Your task to perform on an android device: Go to calendar. Show me events next week Image 0: 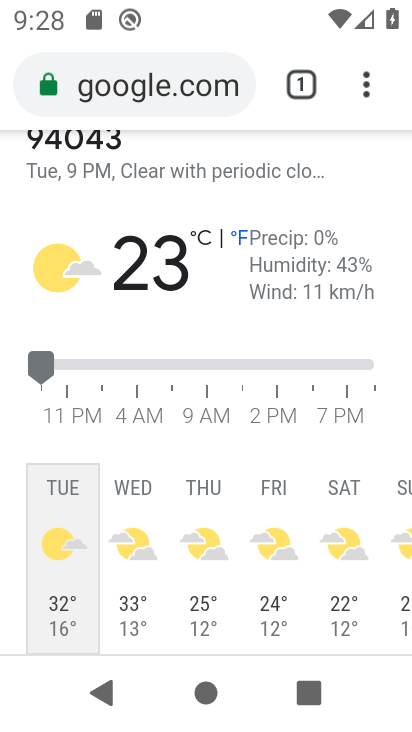
Step 0: press home button
Your task to perform on an android device: Go to calendar. Show me events next week Image 1: 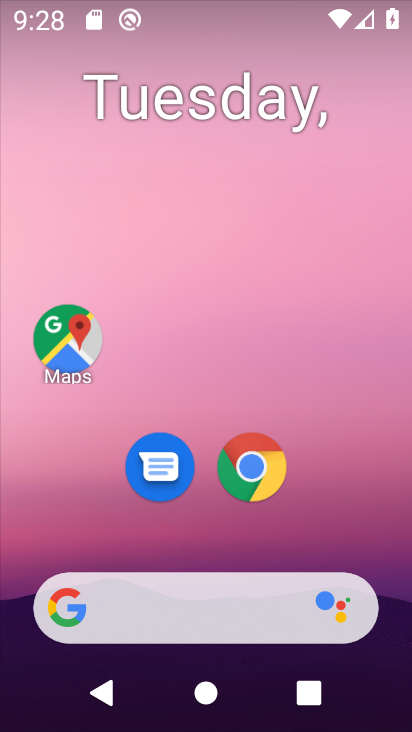
Step 1: drag from (365, 526) to (372, 130)
Your task to perform on an android device: Go to calendar. Show me events next week Image 2: 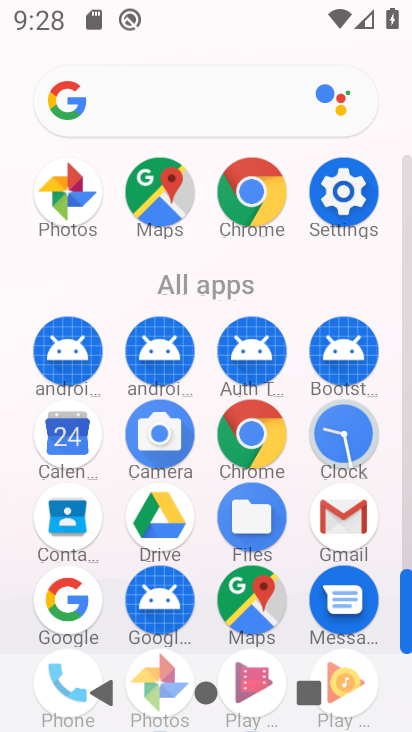
Step 2: click (66, 445)
Your task to perform on an android device: Go to calendar. Show me events next week Image 3: 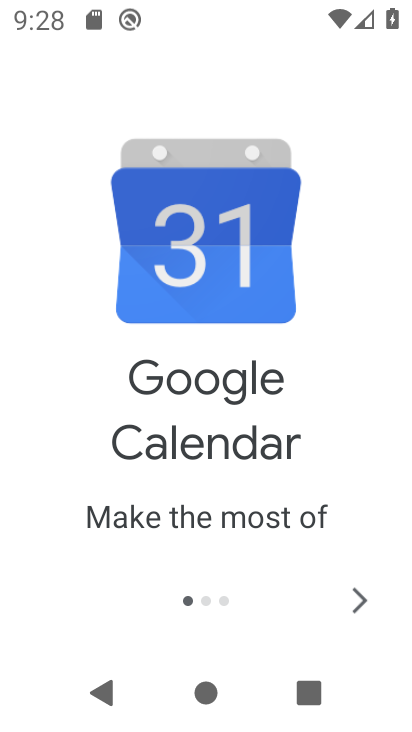
Step 3: click (352, 608)
Your task to perform on an android device: Go to calendar. Show me events next week Image 4: 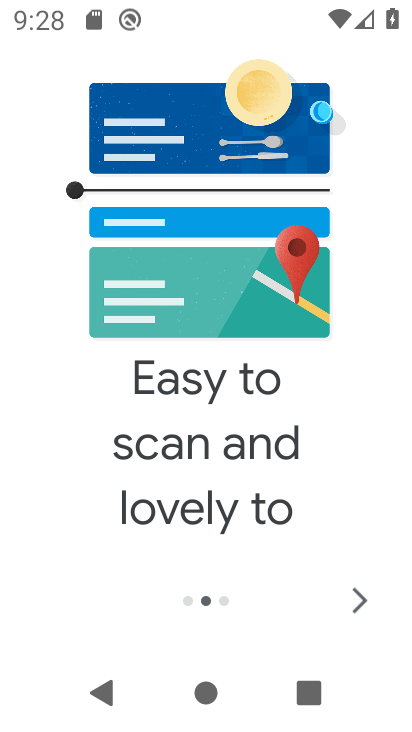
Step 4: click (351, 607)
Your task to perform on an android device: Go to calendar. Show me events next week Image 5: 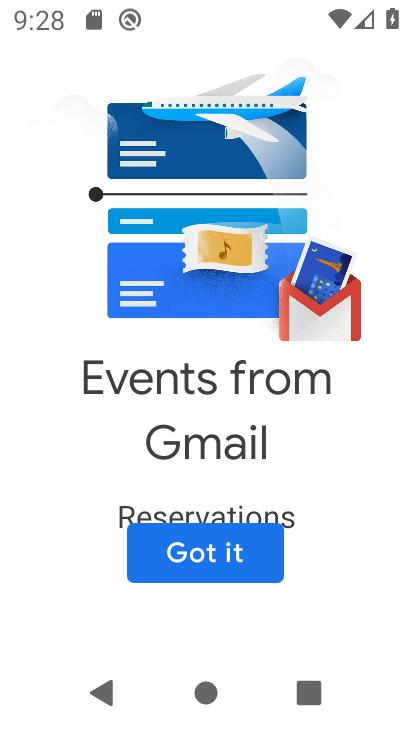
Step 5: click (220, 559)
Your task to perform on an android device: Go to calendar. Show me events next week Image 6: 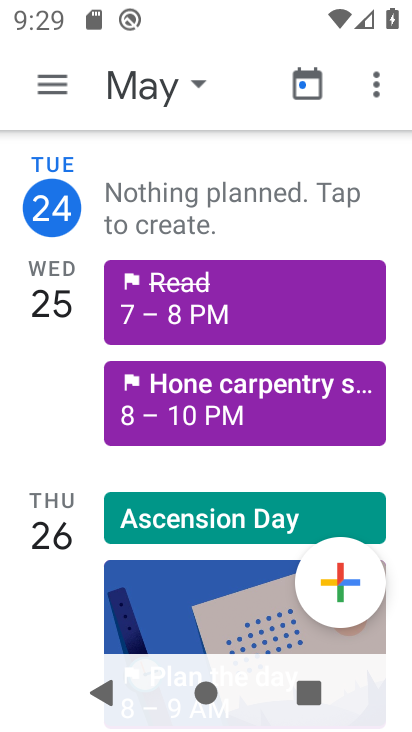
Step 6: click (155, 91)
Your task to perform on an android device: Go to calendar. Show me events next week Image 7: 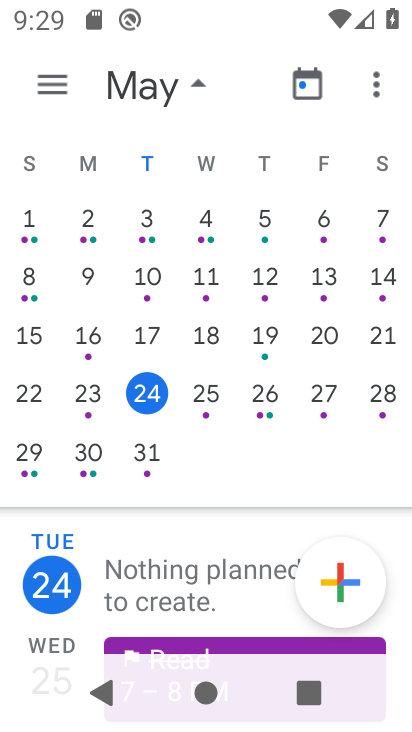
Step 7: click (28, 452)
Your task to perform on an android device: Go to calendar. Show me events next week Image 8: 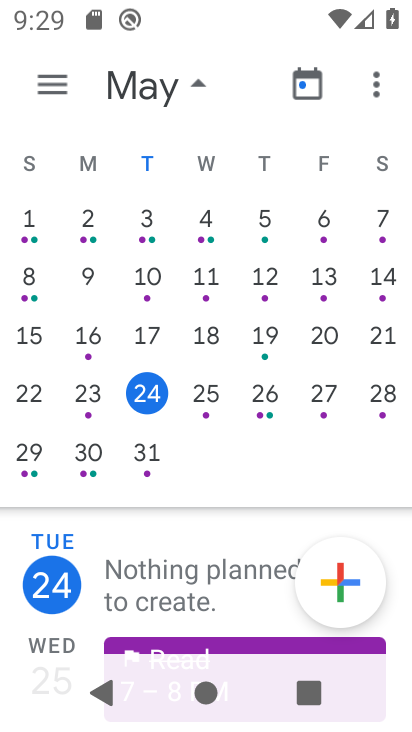
Step 8: click (41, 450)
Your task to perform on an android device: Go to calendar. Show me events next week Image 9: 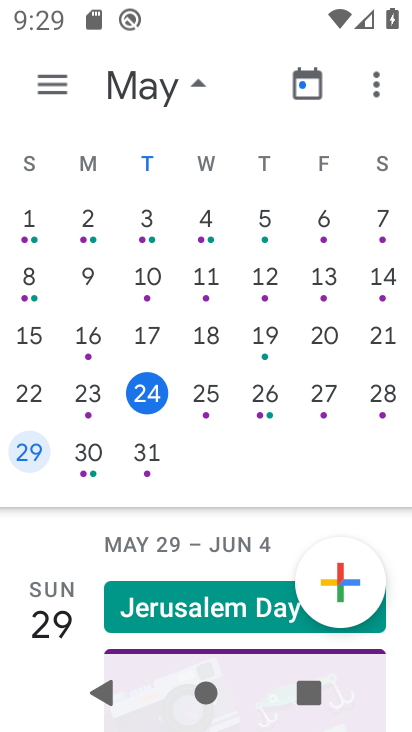
Step 9: task complete